Your task to perform on an android device: Is it going to rain this weekend? Image 0: 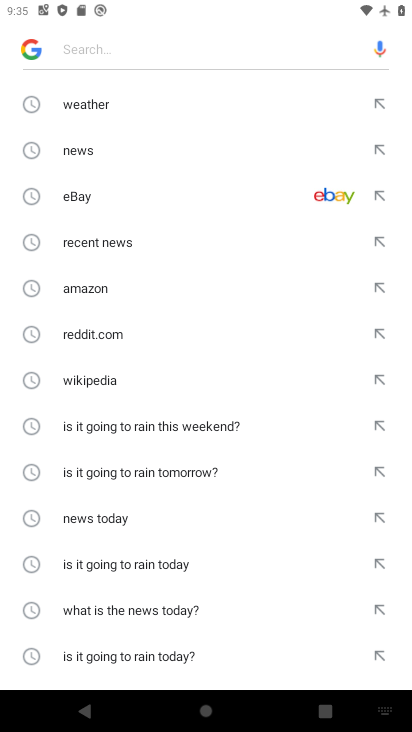
Step 0: press home button
Your task to perform on an android device: Is it going to rain this weekend? Image 1: 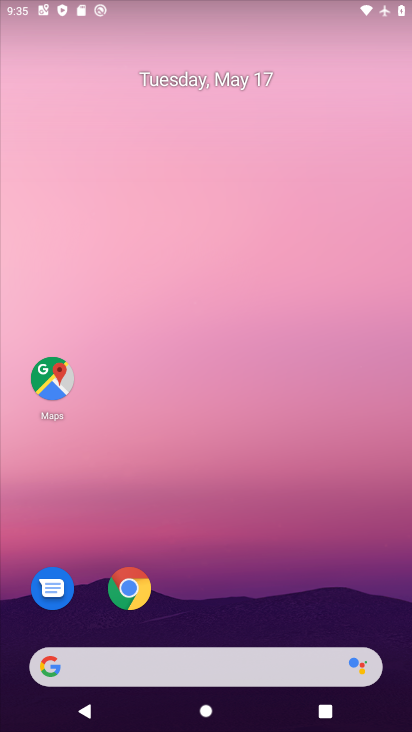
Step 1: drag from (221, 619) to (211, 61)
Your task to perform on an android device: Is it going to rain this weekend? Image 2: 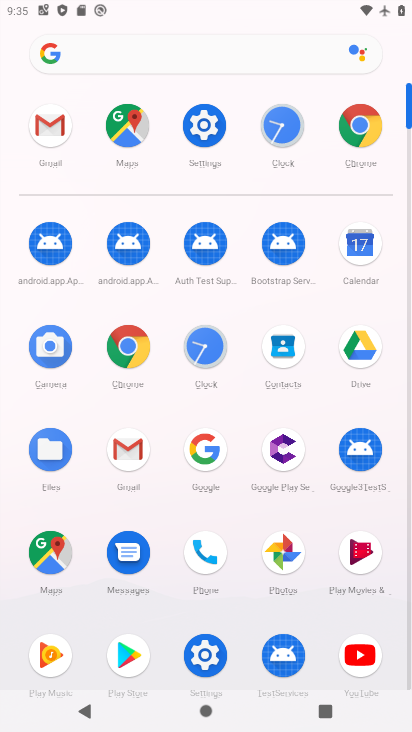
Step 2: click (213, 448)
Your task to perform on an android device: Is it going to rain this weekend? Image 3: 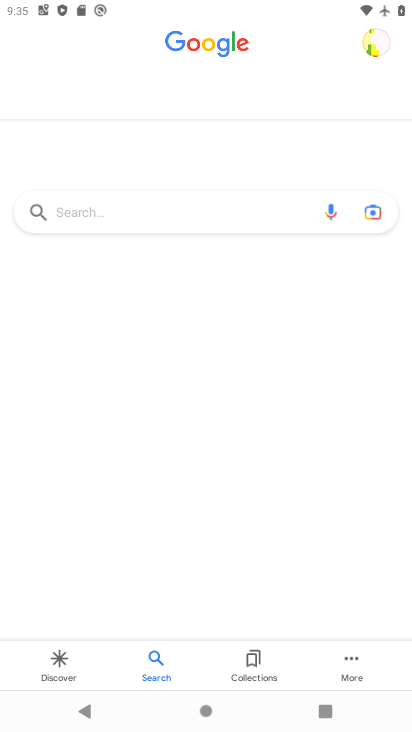
Step 3: click (152, 224)
Your task to perform on an android device: Is it going to rain this weekend? Image 4: 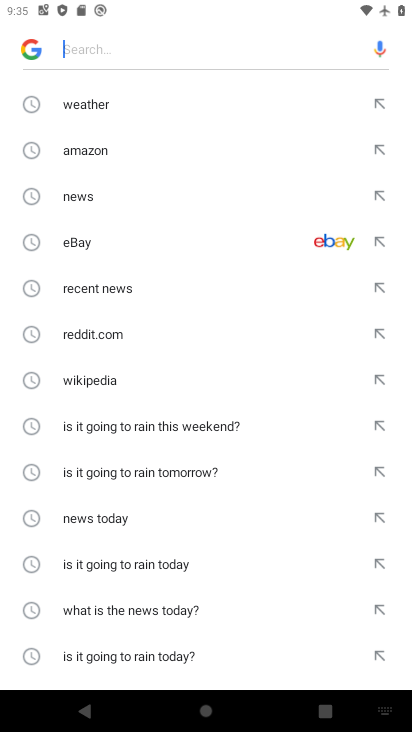
Step 4: click (91, 110)
Your task to perform on an android device: Is it going to rain this weekend? Image 5: 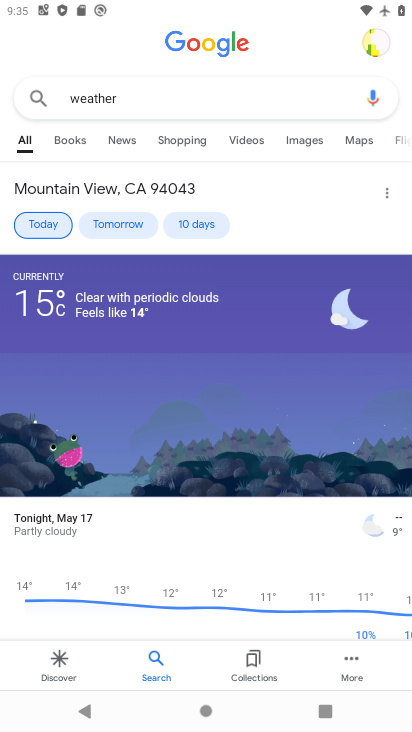
Step 5: click (194, 217)
Your task to perform on an android device: Is it going to rain this weekend? Image 6: 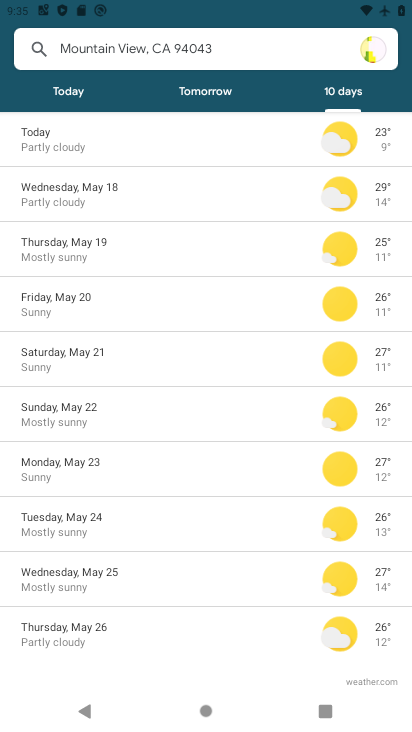
Step 6: task complete